Your task to perform on an android device: Open sound settings Image 0: 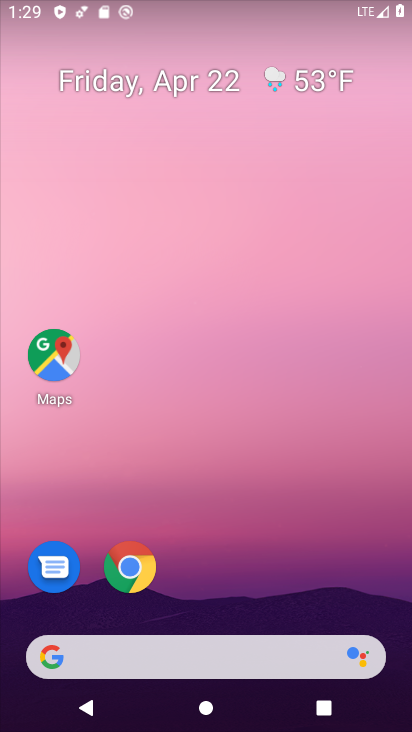
Step 0: drag from (377, 600) to (287, 58)
Your task to perform on an android device: Open sound settings Image 1: 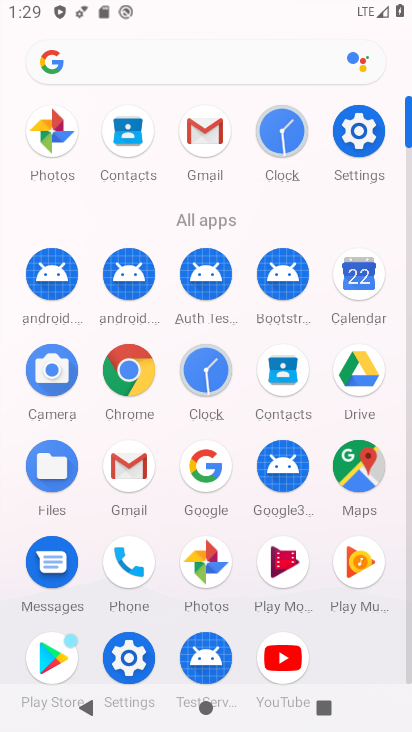
Step 1: click (127, 658)
Your task to perform on an android device: Open sound settings Image 2: 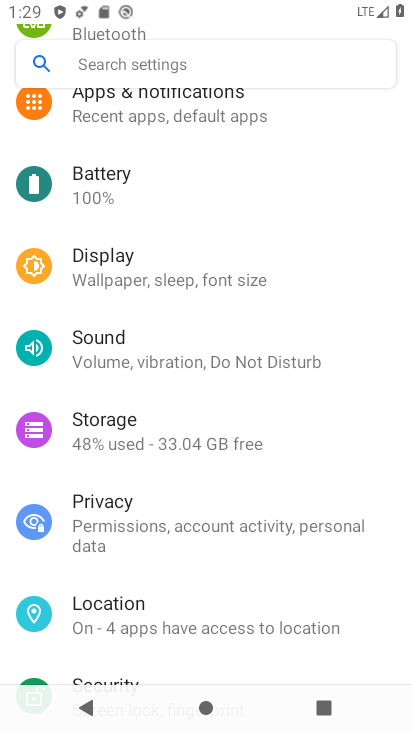
Step 2: click (101, 349)
Your task to perform on an android device: Open sound settings Image 3: 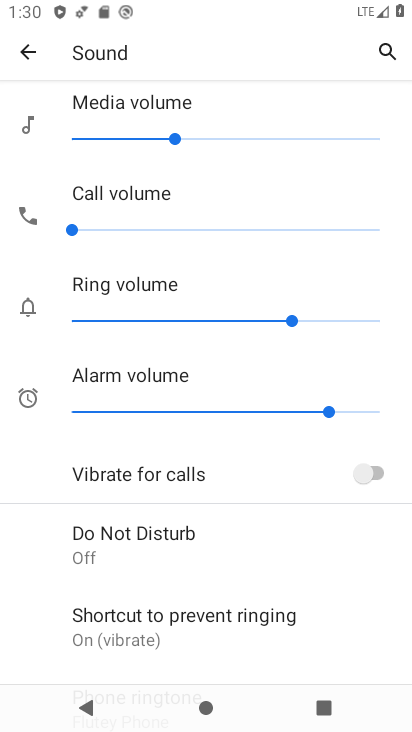
Step 3: task complete